Your task to perform on an android device: Search for vegetarian restaurants on Maps Image 0: 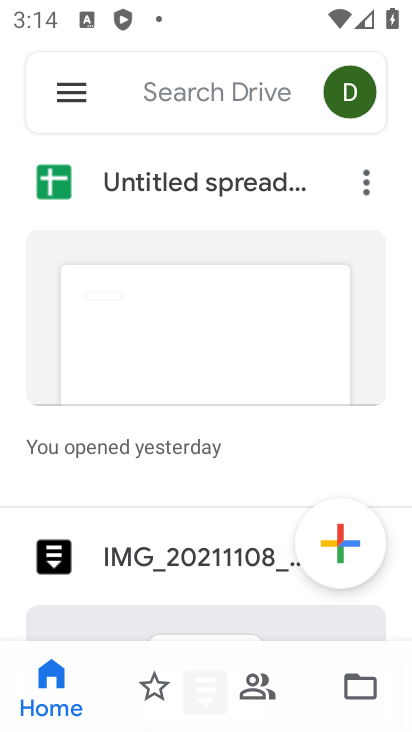
Step 0: press home button
Your task to perform on an android device: Search for vegetarian restaurants on Maps Image 1: 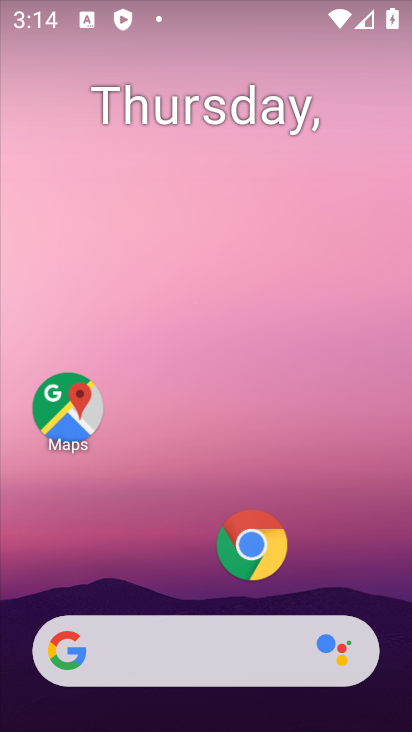
Step 1: drag from (181, 606) to (238, 19)
Your task to perform on an android device: Search for vegetarian restaurants on Maps Image 2: 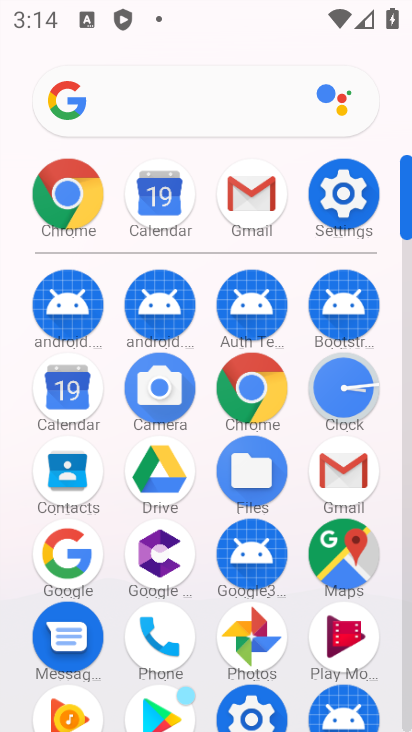
Step 2: click (346, 547)
Your task to perform on an android device: Search for vegetarian restaurants on Maps Image 3: 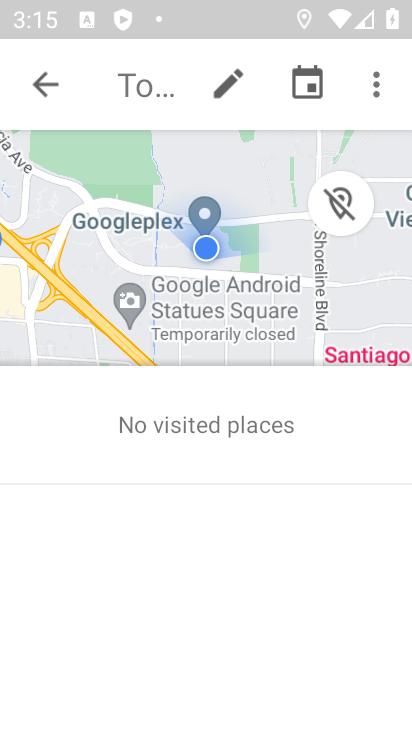
Step 3: press back button
Your task to perform on an android device: Search for vegetarian restaurants on Maps Image 4: 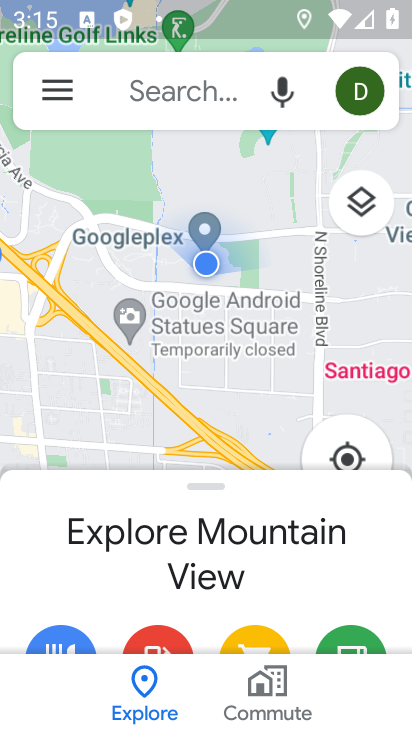
Step 4: click (212, 83)
Your task to perform on an android device: Search for vegetarian restaurants on Maps Image 5: 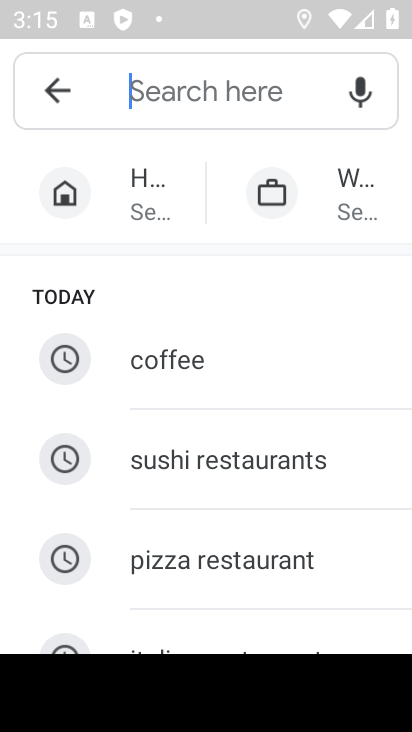
Step 5: type "vegetarian restaurant"
Your task to perform on an android device: Search for vegetarian restaurants on Maps Image 6: 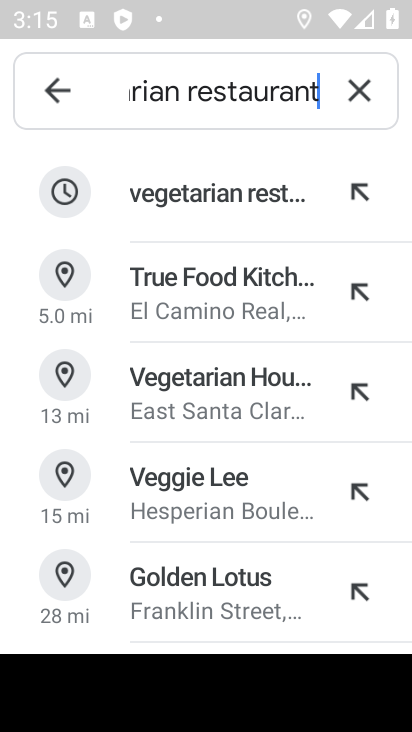
Step 6: click (183, 197)
Your task to perform on an android device: Search for vegetarian restaurants on Maps Image 7: 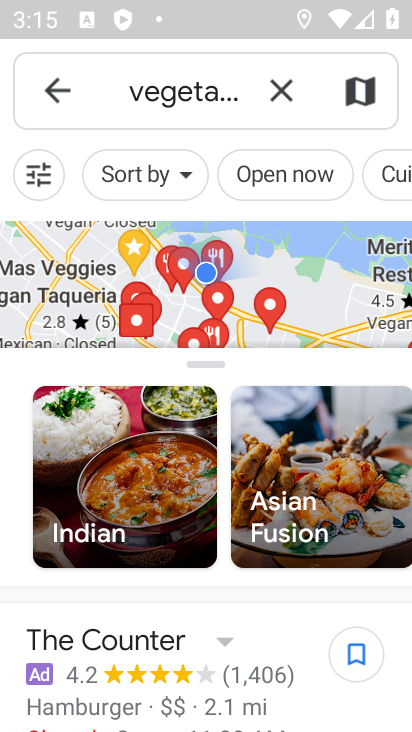
Step 7: task complete